Your task to perform on an android device: check data usage Image 0: 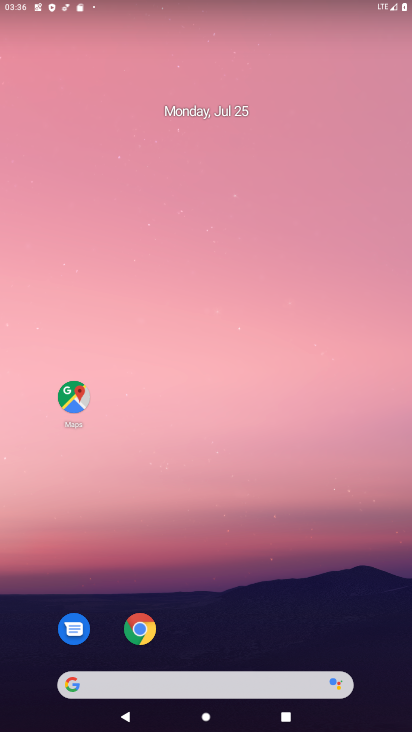
Step 0: drag from (265, 641) to (230, 1)
Your task to perform on an android device: check data usage Image 1: 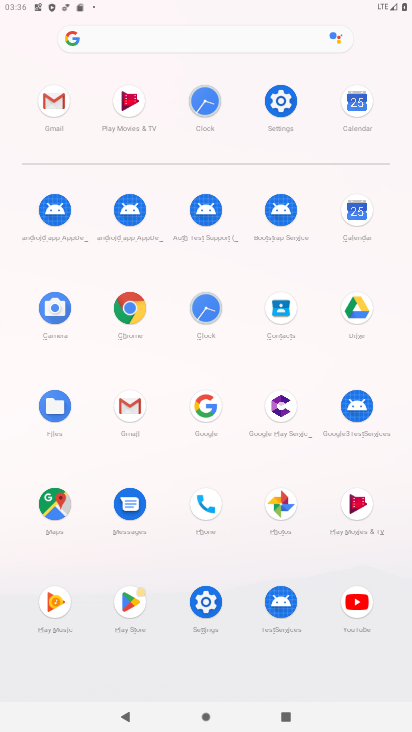
Step 1: click (271, 117)
Your task to perform on an android device: check data usage Image 2: 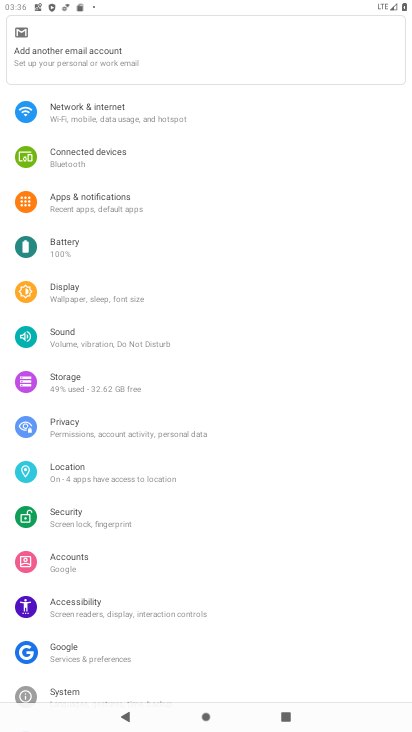
Step 2: click (66, 125)
Your task to perform on an android device: check data usage Image 3: 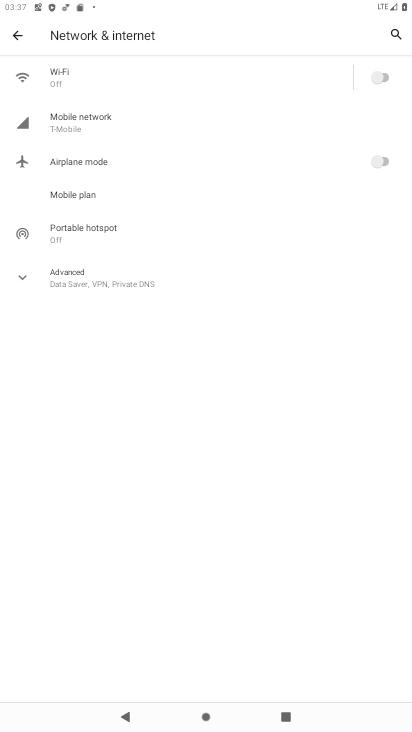
Step 3: click (77, 126)
Your task to perform on an android device: check data usage Image 4: 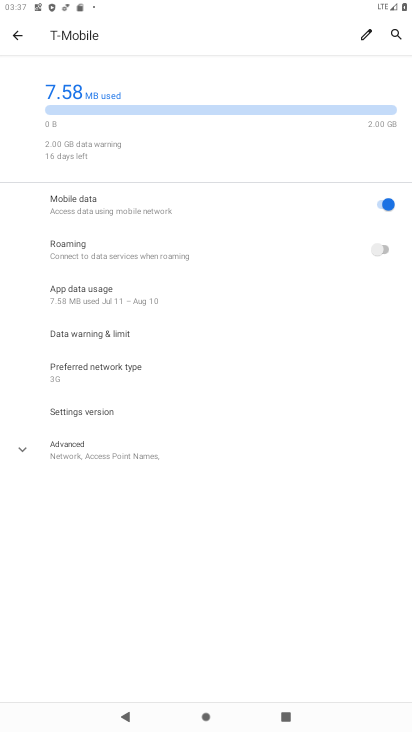
Step 4: click (26, 455)
Your task to perform on an android device: check data usage Image 5: 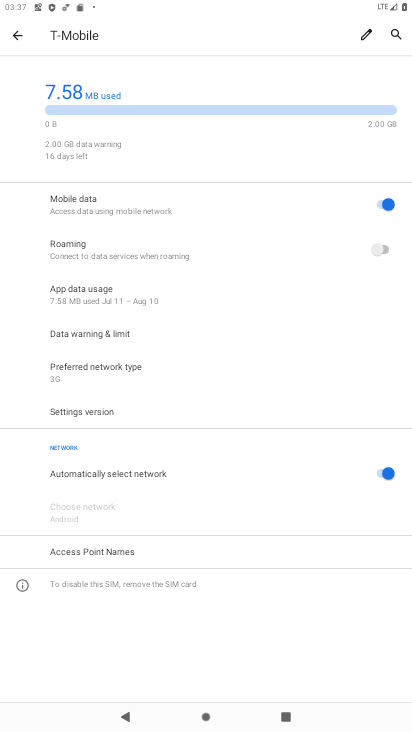
Step 5: click (83, 302)
Your task to perform on an android device: check data usage Image 6: 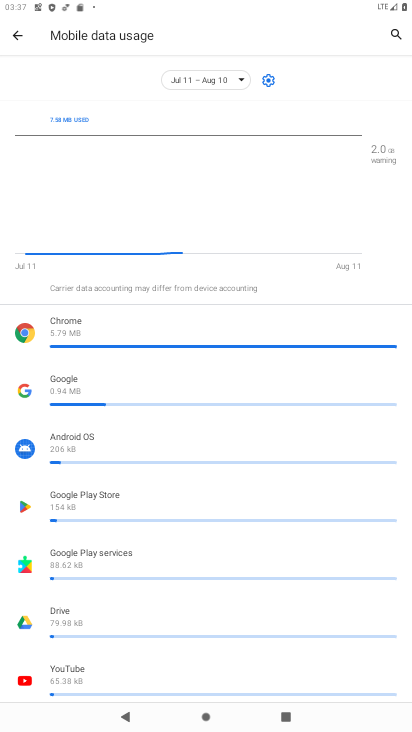
Step 6: task complete